Your task to perform on an android device: Open Google Maps Image 0: 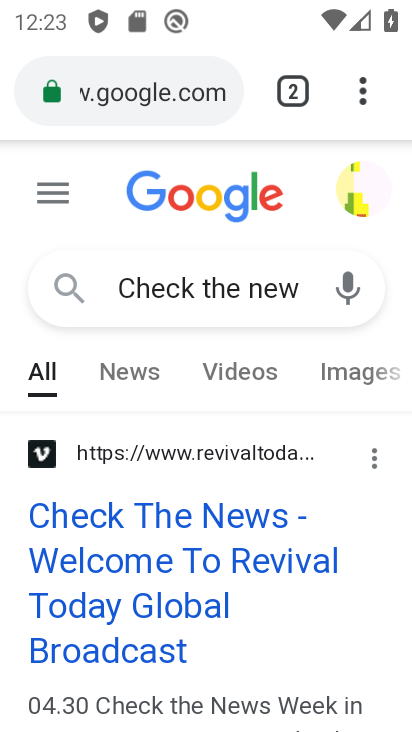
Step 0: press home button
Your task to perform on an android device: Open Google Maps Image 1: 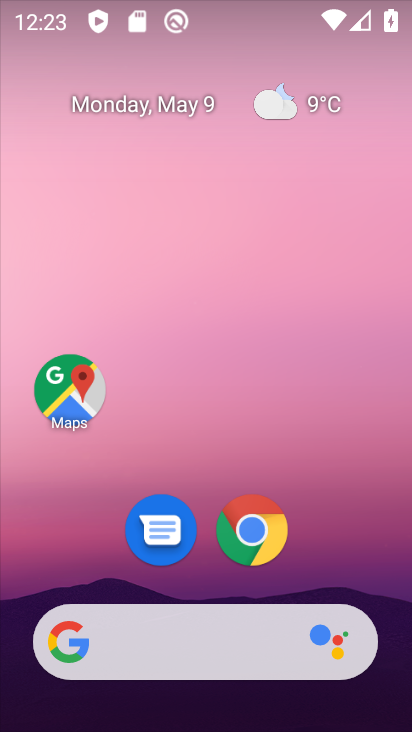
Step 1: drag from (346, 486) to (348, 224)
Your task to perform on an android device: Open Google Maps Image 2: 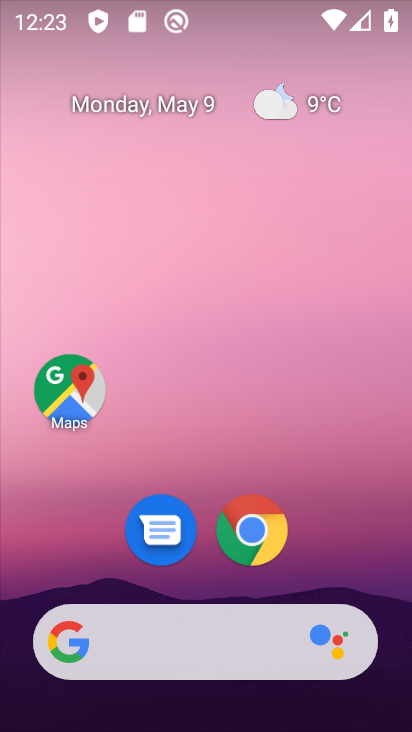
Step 2: drag from (339, 563) to (345, 209)
Your task to perform on an android device: Open Google Maps Image 3: 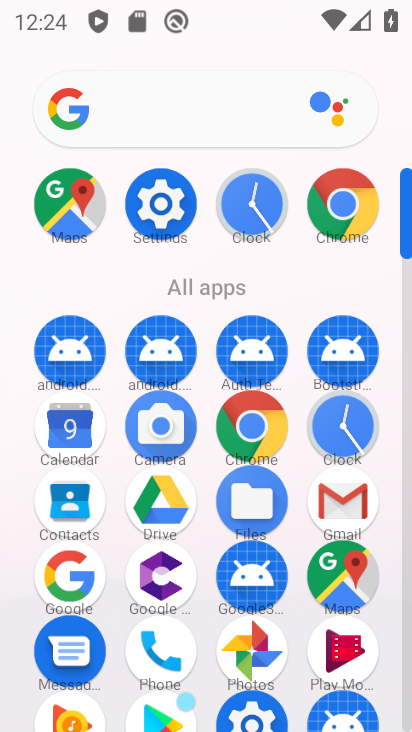
Step 3: click (333, 569)
Your task to perform on an android device: Open Google Maps Image 4: 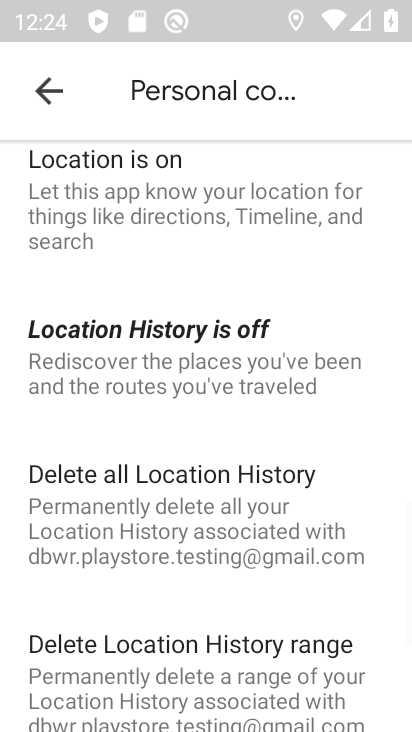
Step 4: click (40, 88)
Your task to perform on an android device: Open Google Maps Image 5: 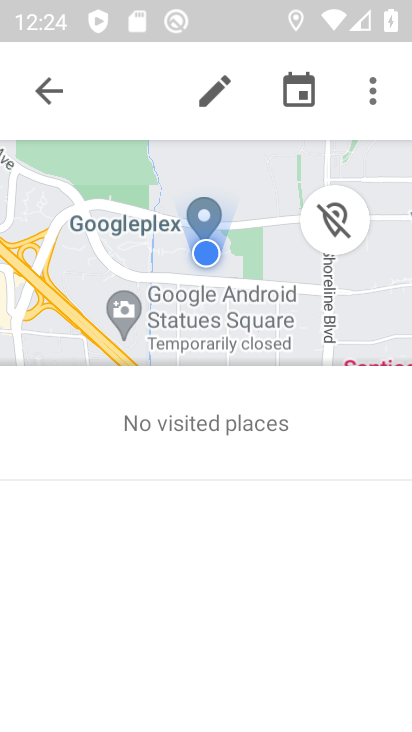
Step 5: click (40, 88)
Your task to perform on an android device: Open Google Maps Image 6: 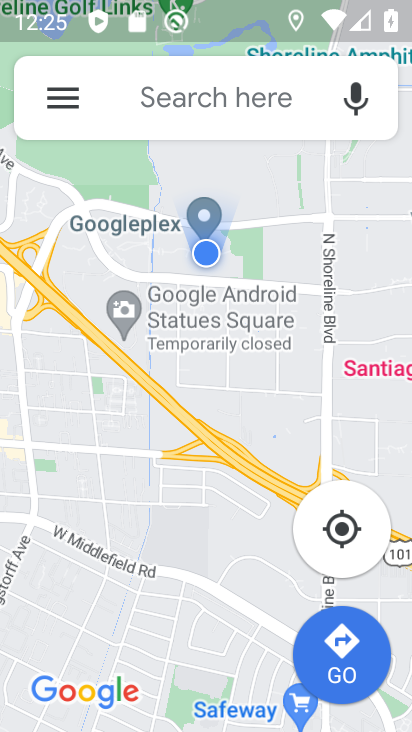
Step 6: task complete